Your task to perform on an android device: When is my next meeting? Image 0: 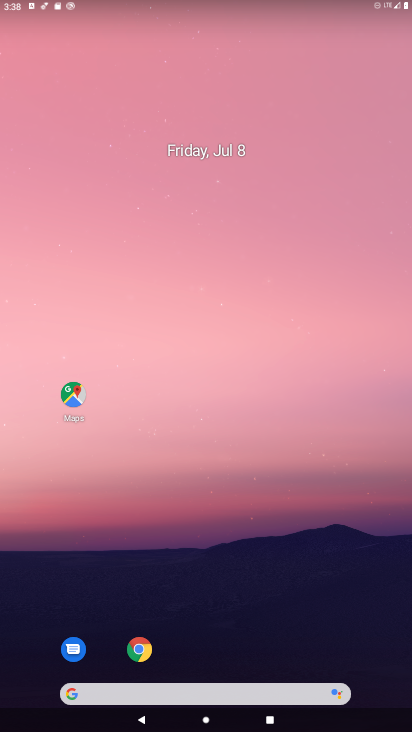
Step 0: drag from (381, 643) to (344, 132)
Your task to perform on an android device: When is my next meeting? Image 1: 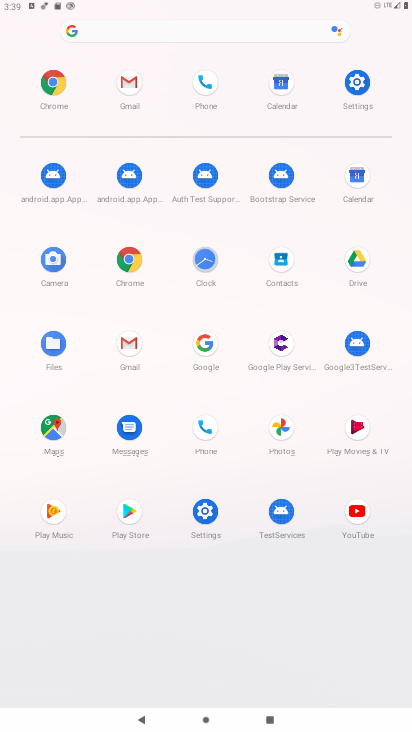
Step 1: click (358, 177)
Your task to perform on an android device: When is my next meeting? Image 2: 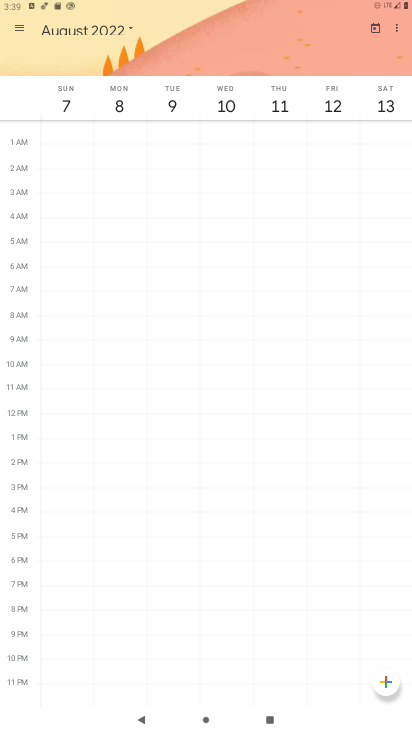
Step 2: click (23, 31)
Your task to perform on an android device: When is my next meeting? Image 3: 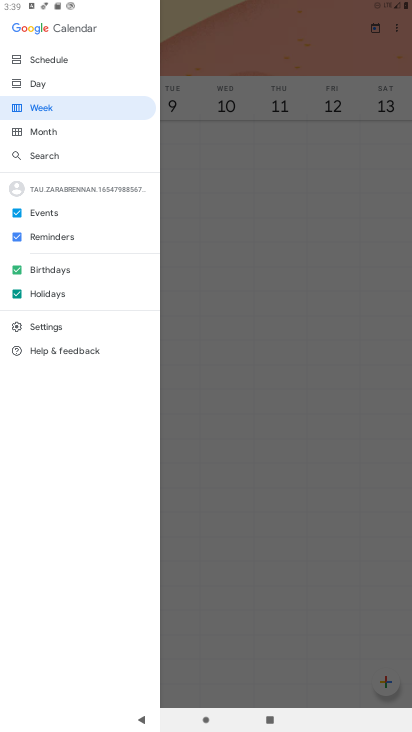
Step 3: click (30, 50)
Your task to perform on an android device: When is my next meeting? Image 4: 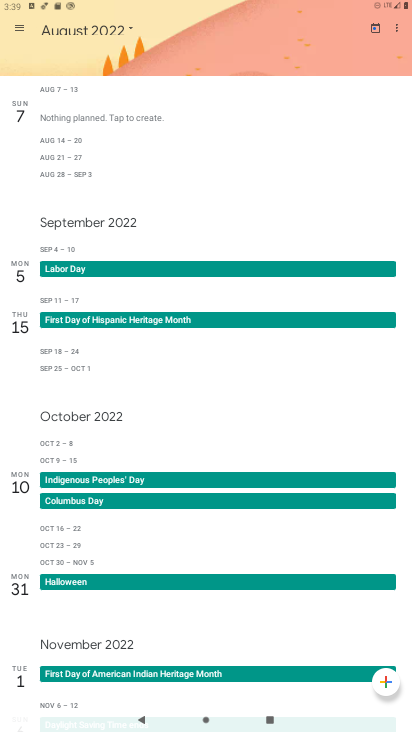
Step 4: task complete